Your task to perform on an android device: Open sound settings Image 0: 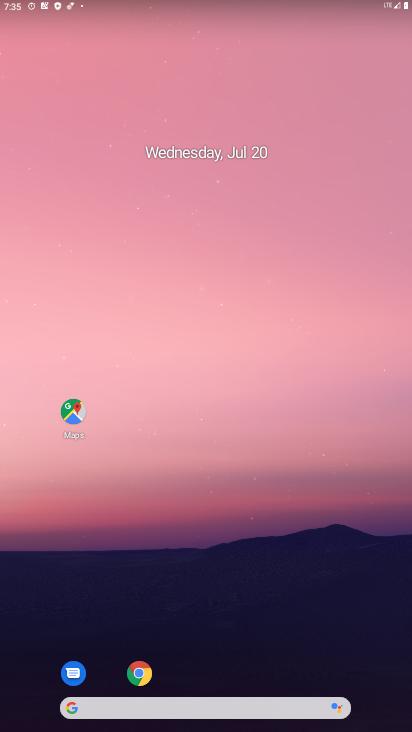
Step 0: drag from (349, 643) to (186, 17)
Your task to perform on an android device: Open sound settings Image 1: 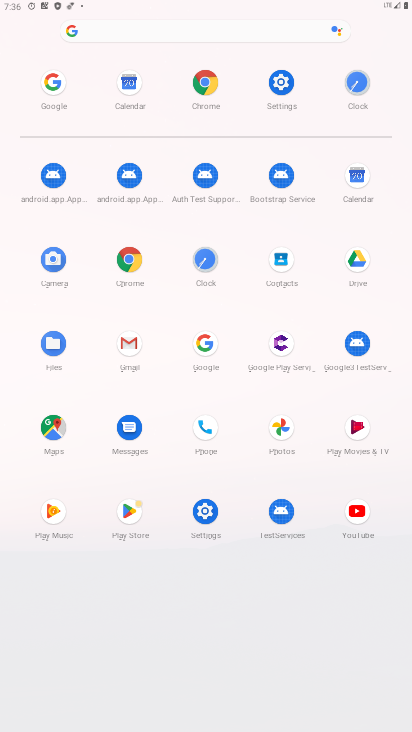
Step 1: click (203, 519)
Your task to perform on an android device: Open sound settings Image 2: 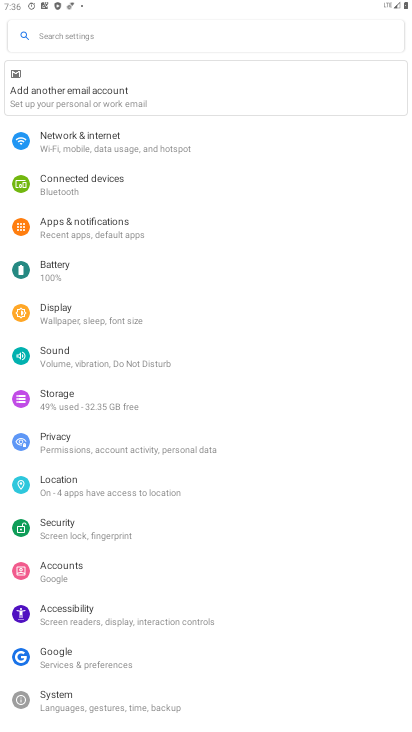
Step 2: click (63, 355)
Your task to perform on an android device: Open sound settings Image 3: 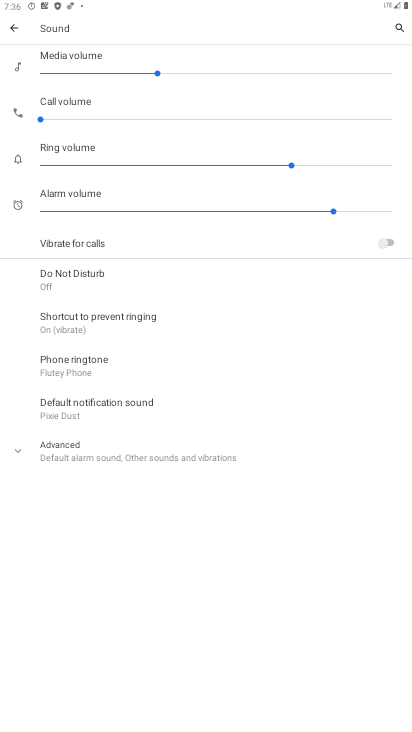
Step 3: task complete